Your task to perform on an android device: Go to privacy settings Image 0: 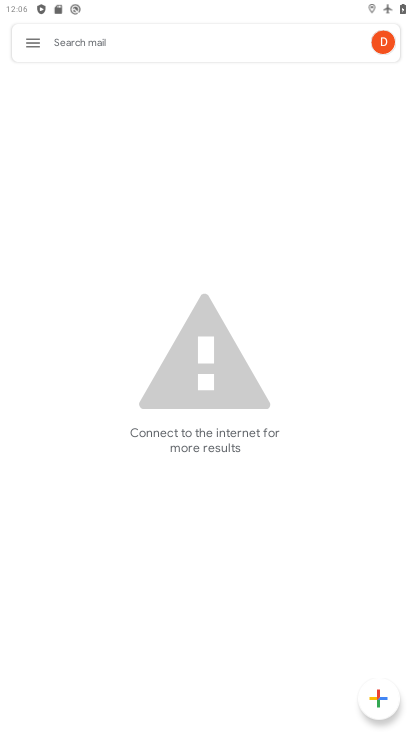
Step 0: drag from (197, 567) to (166, 61)
Your task to perform on an android device: Go to privacy settings Image 1: 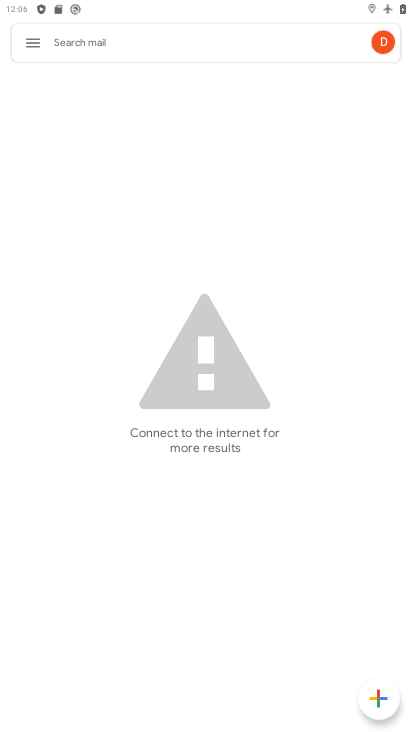
Step 1: press home button
Your task to perform on an android device: Go to privacy settings Image 2: 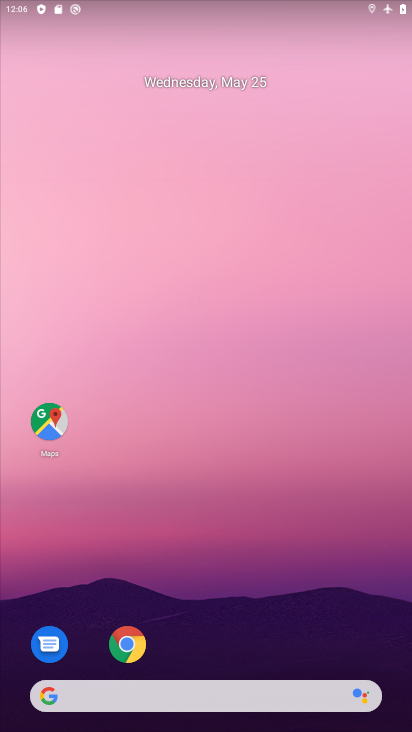
Step 2: drag from (252, 586) to (238, 33)
Your task to perform on an android device: Go to privacy settings Image 3: 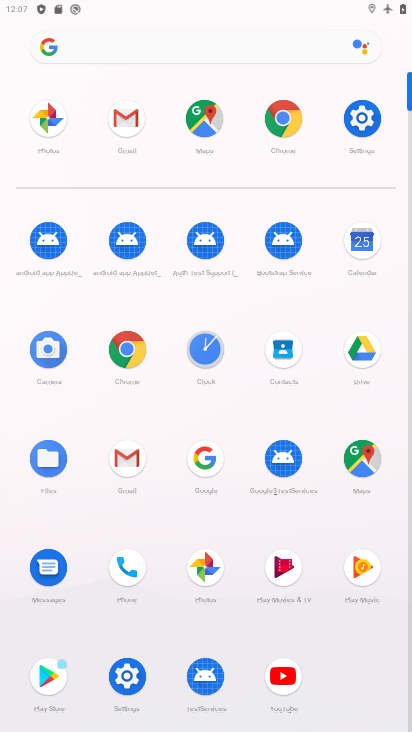
Step 3: click (356, 125)
Your task to perform on an android device: Go to privacy settings Image 4: 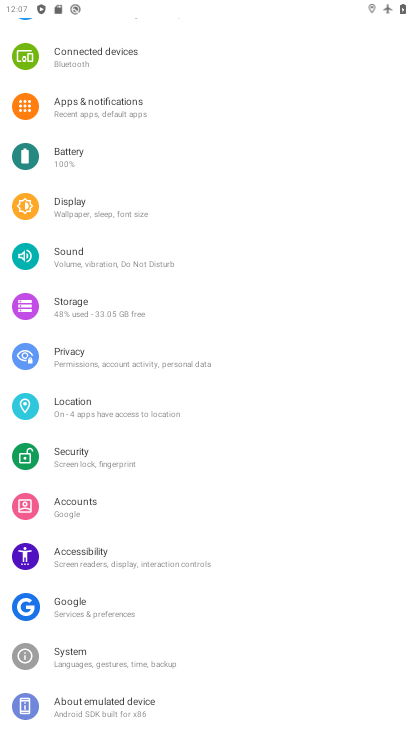
Step 4: click (72, 351)
Your task to perform on an android device: Go to privacy settings Image 5: 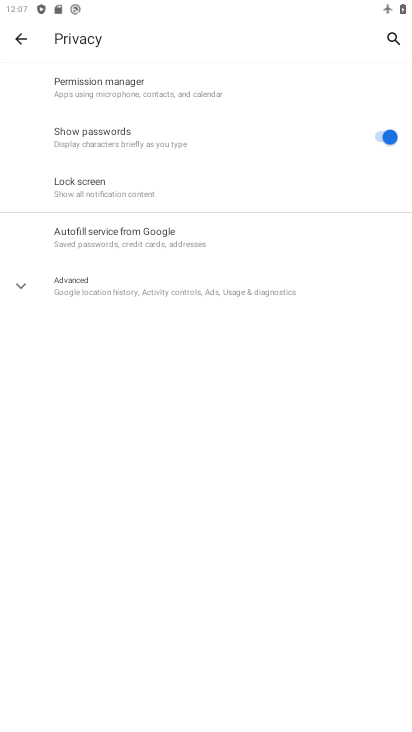
Step 5: task complete